Your task to perform on an android device: Open the map Image 0: 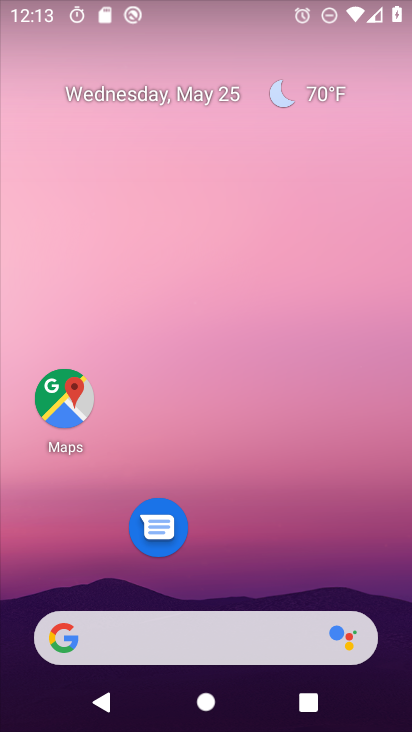
Step 0: click (69, 404)
Your task to perform on an android device: Open the map Image 1: 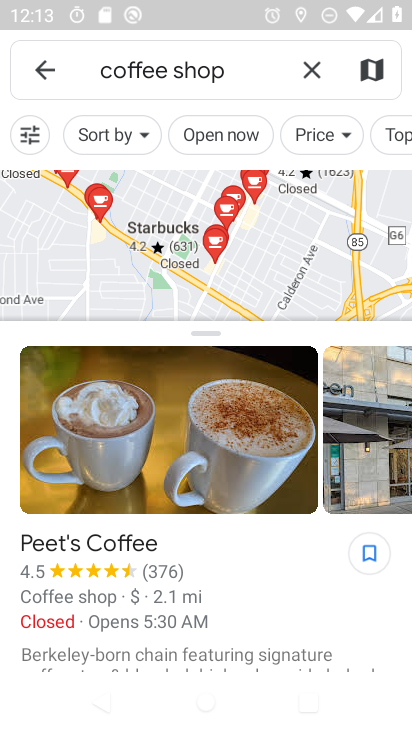
Step 1: task complete